Your task to perform on an android device: When is my next appointment? Image 0: 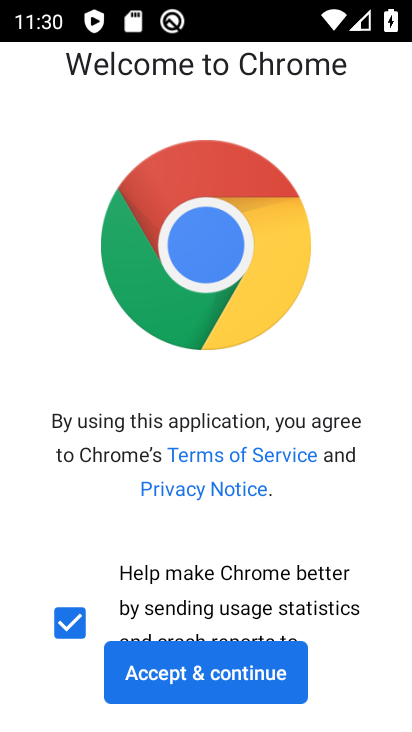
Step 0: press home button
Your task to perform on an android device: When is my next appointment? Image 1: 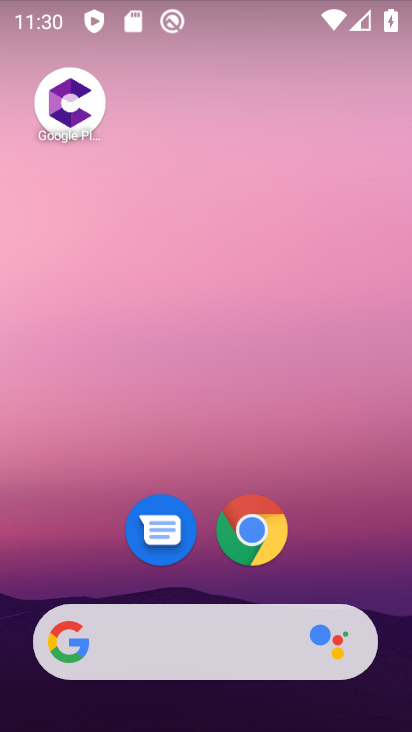
Step 1: drag from (221, 552) to (269, 184)
Your task to perform on an android device: When is my next appointment? Image 2: 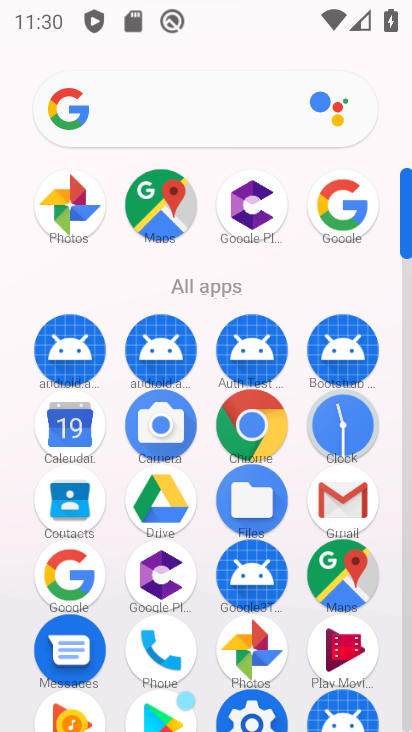
Step 2: click (72, 498)
Your task to perform on an android device: When is my next appointment? Image 3: 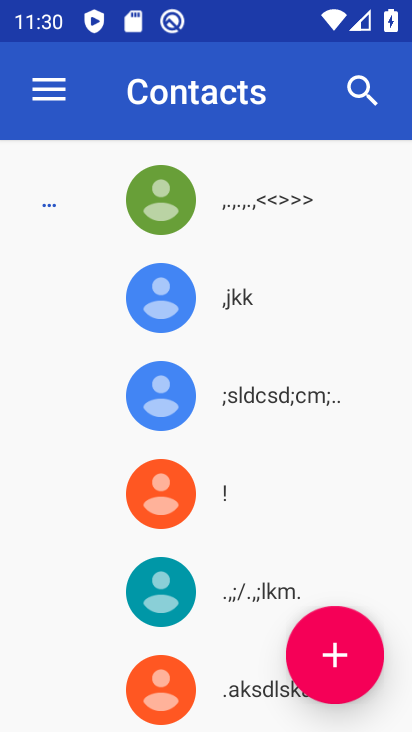
Step 3: press home button
Your task to perform on an android device: When is my next appointment? Image 4: 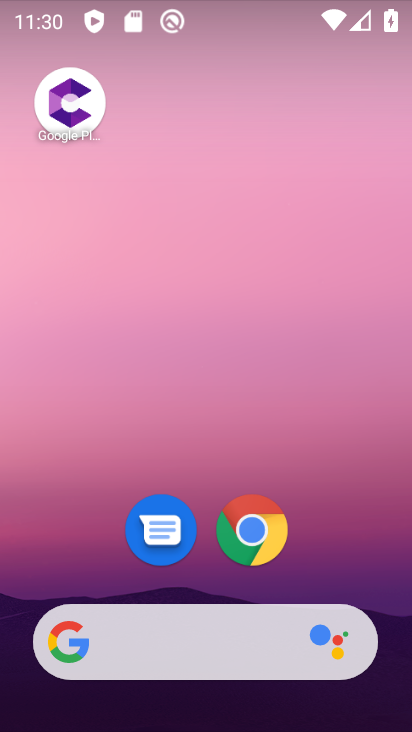
Step 4: drag from (112, 594) to (108, 173)
Your task to perform on an android device: When is my next appointment? Image 5: 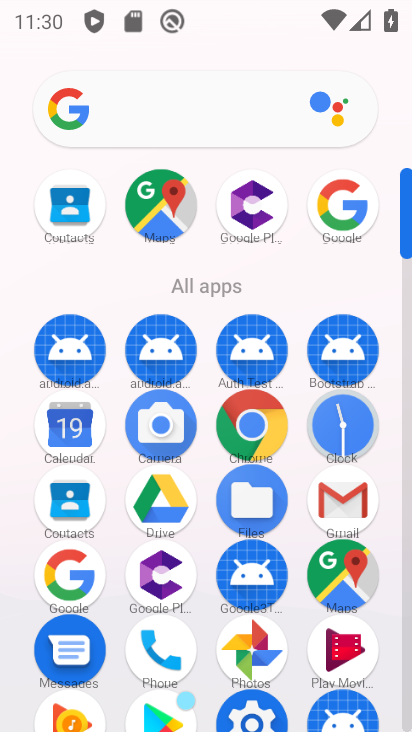
Step 5: click (67, 418)
Your task to perform on an android device: When is my next appointment? Image 6: 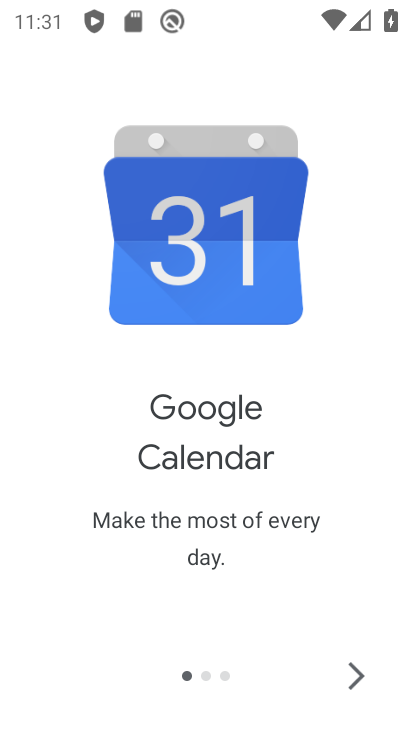
Step 6: click (359, 664)
Your task to perform on an android device: When is my next appointment? Image 7: 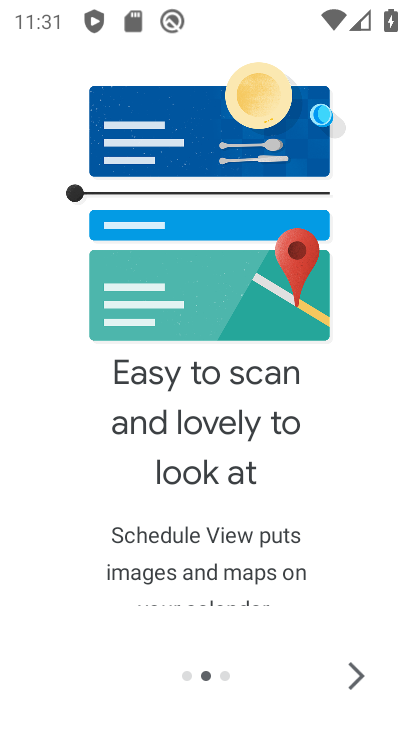
Step 7: click (356, 675)
Your task to perform on an android device: When is my next appointment? Image 8: 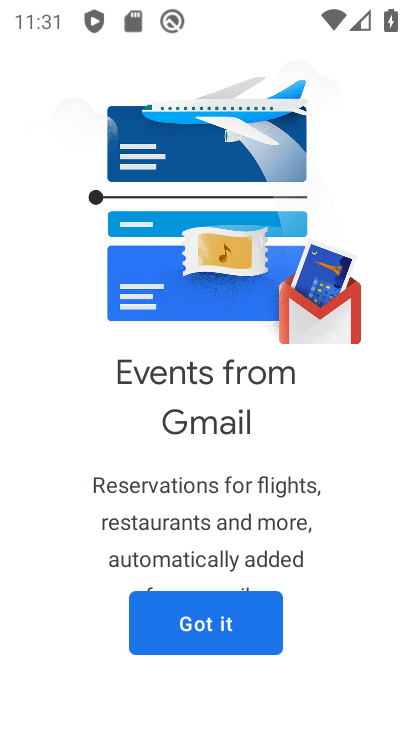
Step 8: click (204, 638)
Your task to perform on an android device: When is my next appointment? Image 9: 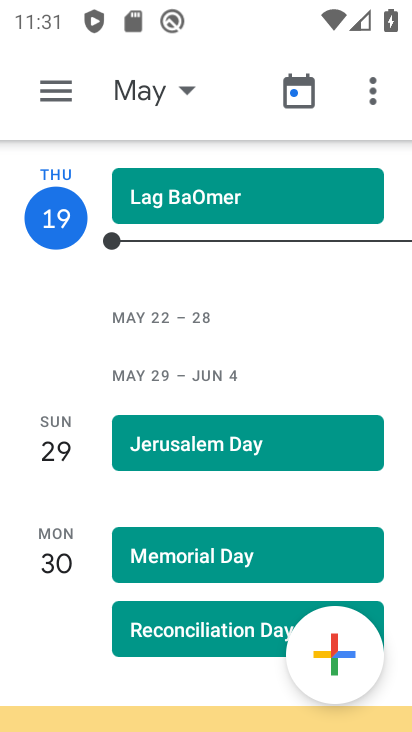
Step 9: task complete